Your task to perform on an android device: Show me productivity apps on the Play Store Image 0: 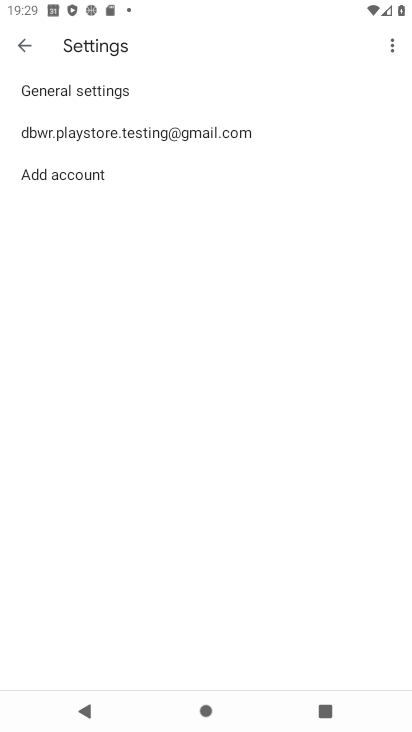
Step 0: press home button
Your task to perform on an android device: Show me productivity apps on the Play Store Image 1: 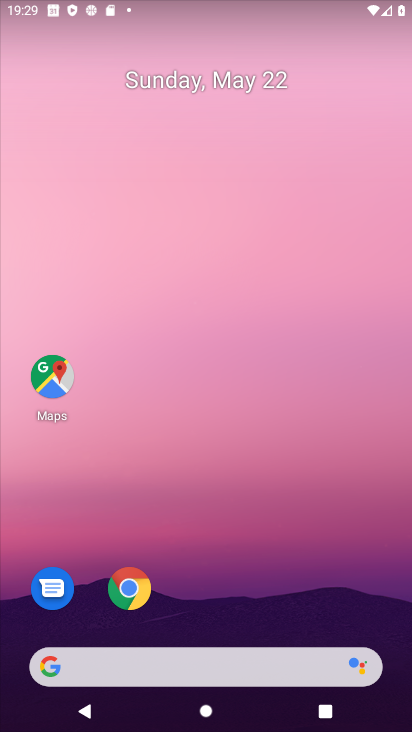
Step 1: drag from (201, 550) to (94, 21)
Your task to perform on an android device: Show me productivity apps on the Play Store Image 2: 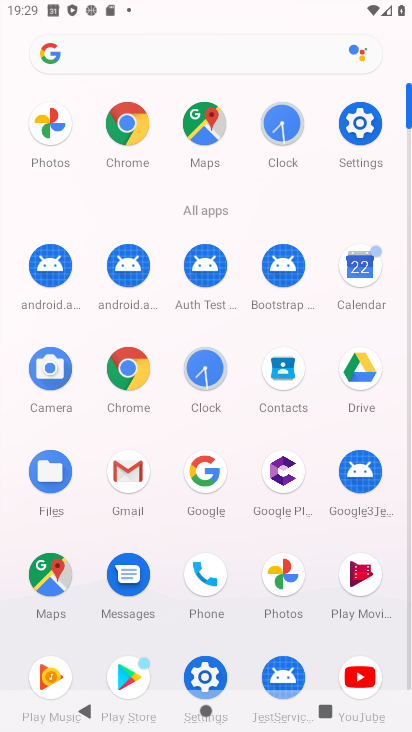
Step 2: click (129, 669)
Your task to perform on an android device: Show me productivity apps on the Play Store Image 3: 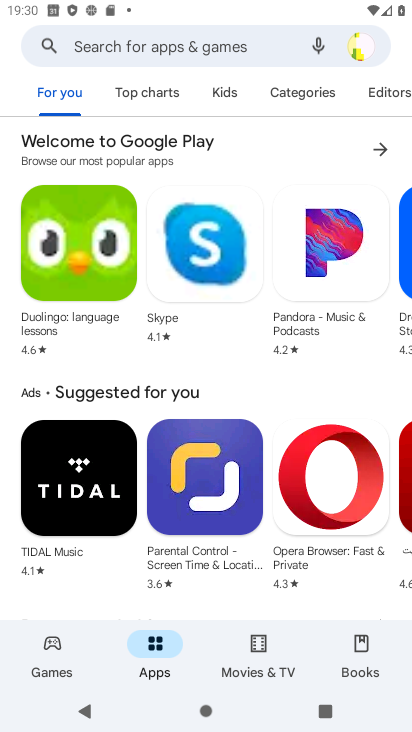
Step 3: task complete